Your task to perform on an android device: turn off location history Image 0: 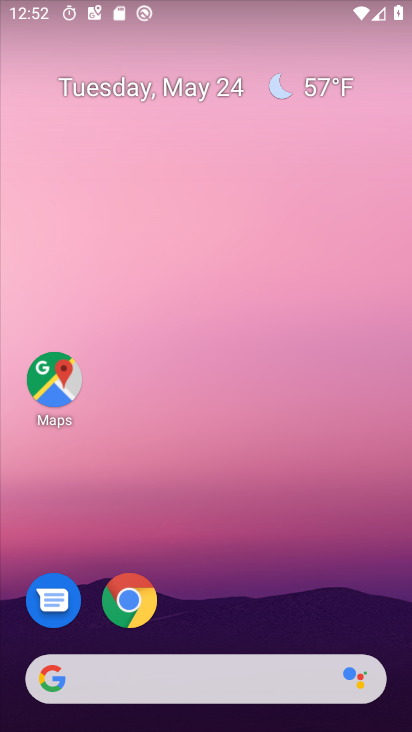
Step 0: drag from (244, 539) to (295, 116)
Your task to perform on an android device: turn off location history Image 1: 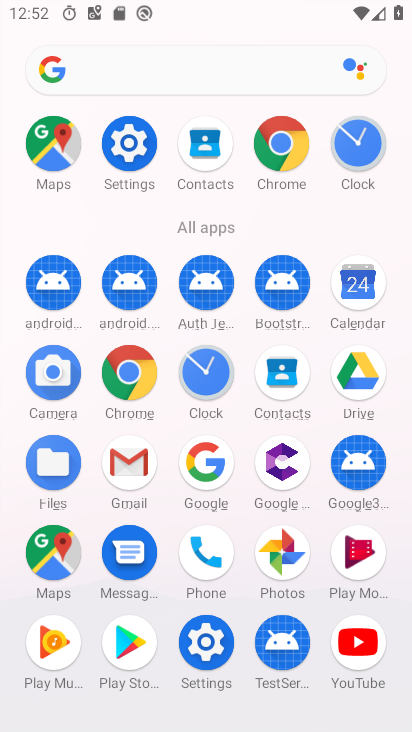
Step 1: click (137, 130)
Your task to perform on an android device: turn off location history Image 2: 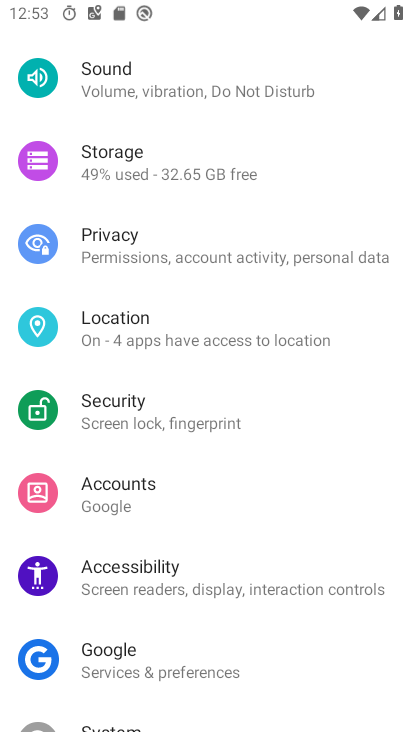
Step 2: click (150, 324)
Your task to perform on an android device: turn off location history Image 3: 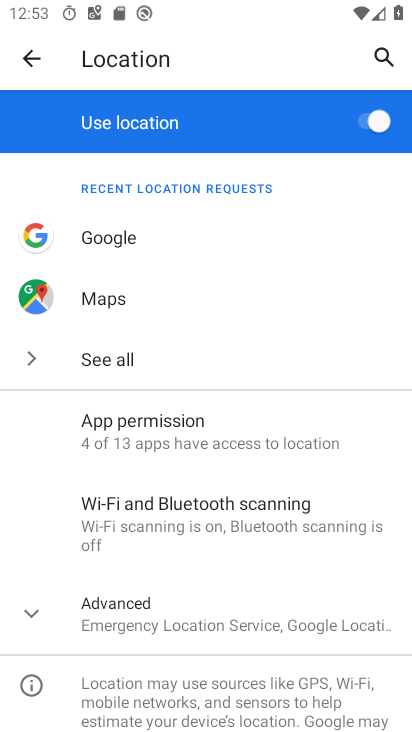
Step 3: click (245, 608)
Your task to perform on an android device: turn off location history Image 4: 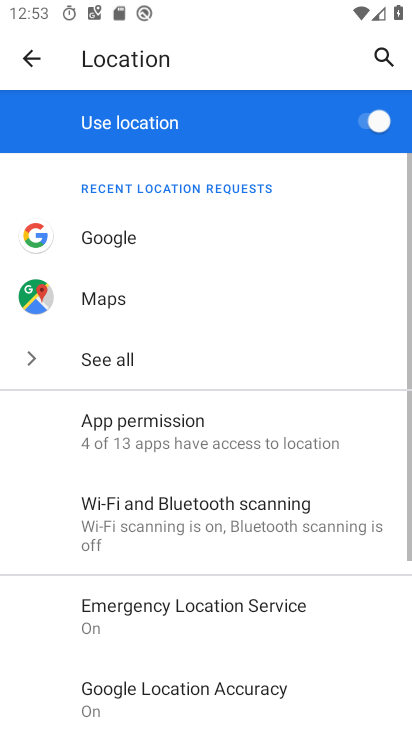
Step 4: drag from (253, 412) to (286, 183)
Your task to perform on an android device: turn off location history Image 5: 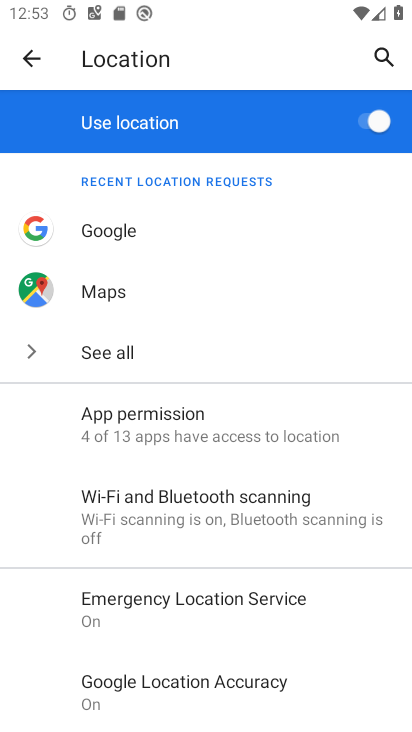
Step 5: drag from (183, 642) to (264, 188)
Your task to perform on an android device: turn off location history Image 6: 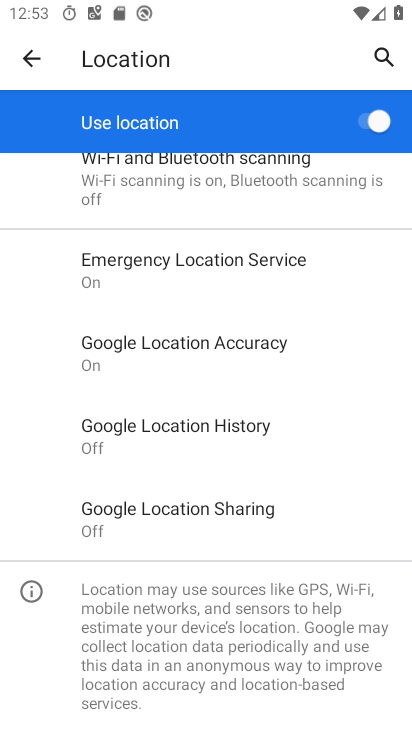
Step 6: click (198, 429)
Your task to perform on an android device: turn off location history Image 7: 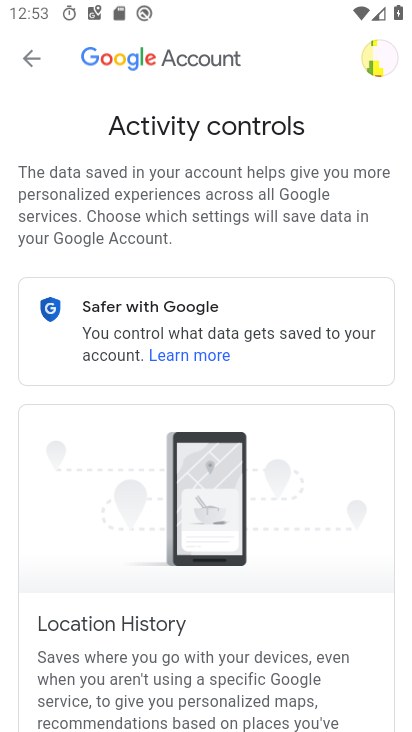
Step 7: task complete